Your task to perform on an android device: Open Maps and search for coffee Image 0: 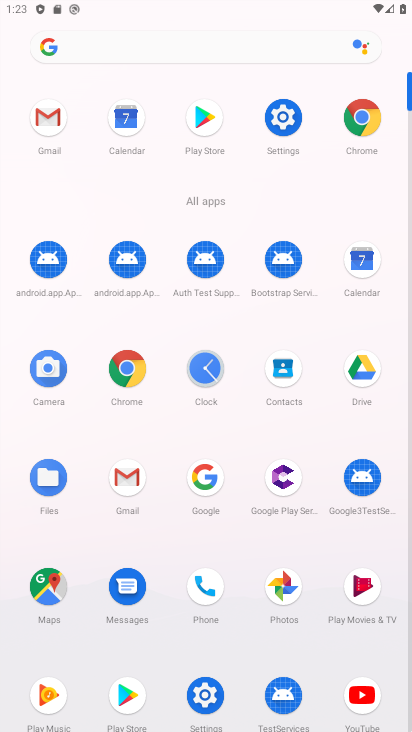
Step 0: click (43, 583)
Your task to perform on an android device: Open Maps and search for coffee Image 1: 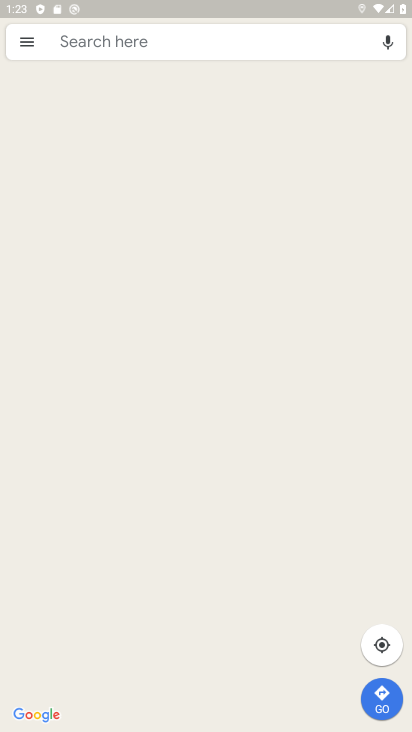
Step 1: click (170, 48)
Your task to perform on an android device: Open Maps and search for coffee Image 2: 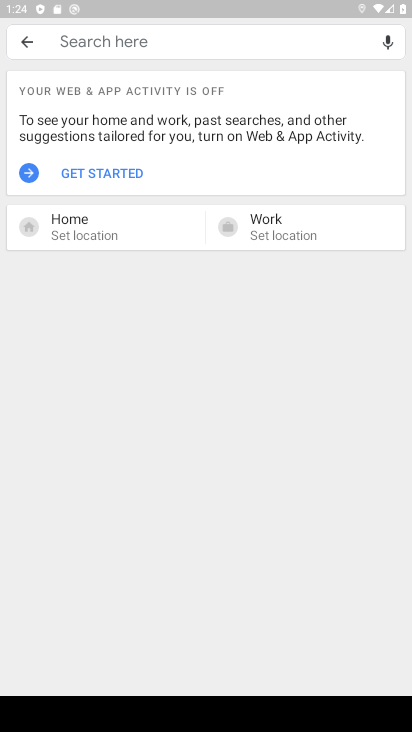
Step 2: type "coffee"
Your task to perform on an android device: Open Maps and search for coffee Image 3: 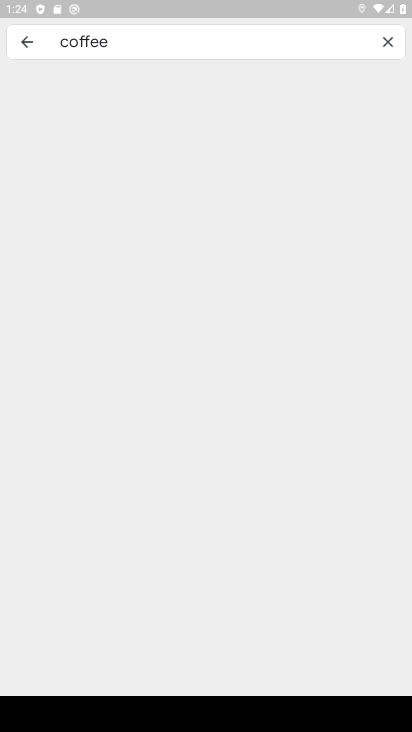
Step 3: press back button
Your task to perform on an android device: Open Maps and search for coffee Image 4: 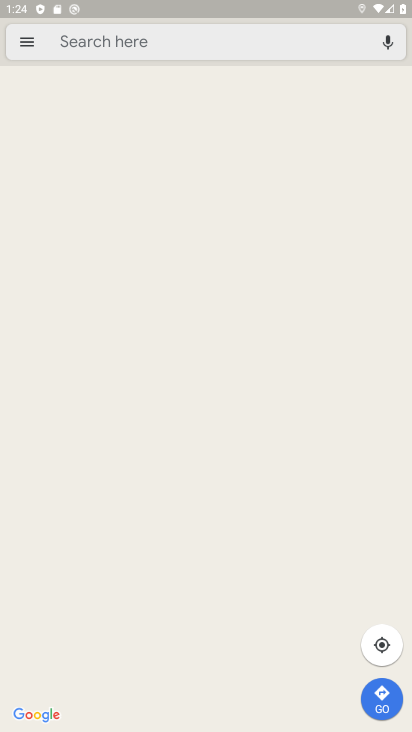
Step 4: click (193, 52)
Your task to perform on an android device: Open Maps and search for coffee Image 5: 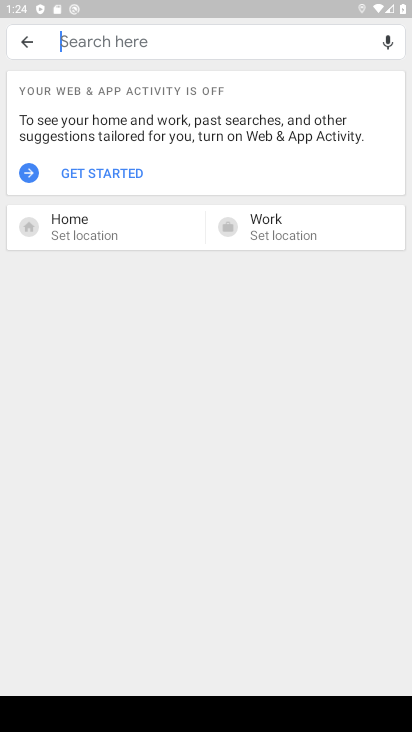
Step 5: type "coffee"
Your task to perform on an android device: Open Maps and search for coffee Image 6: 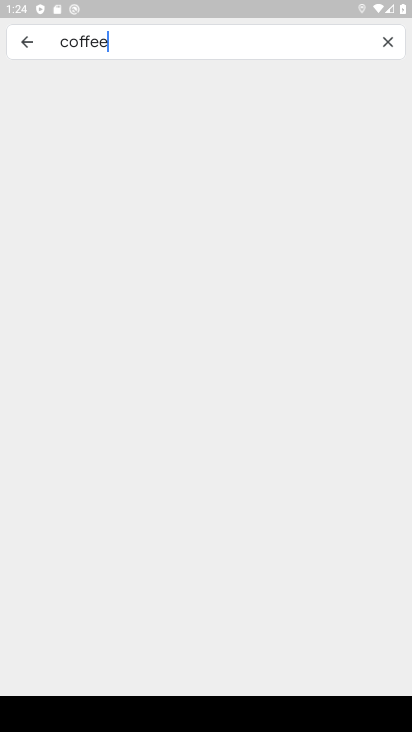
Step 6: type ""
Your task to perform on an android device: Open Maps and search for coffee Image 7: 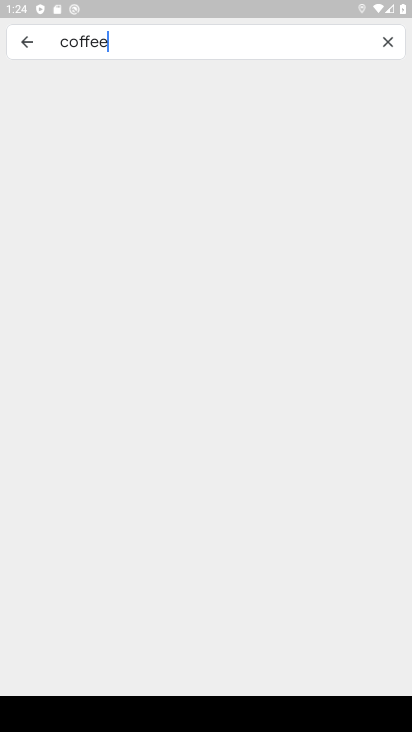
Step 7: task complete